Your task to perform on an android device: Open display settings Image 0: 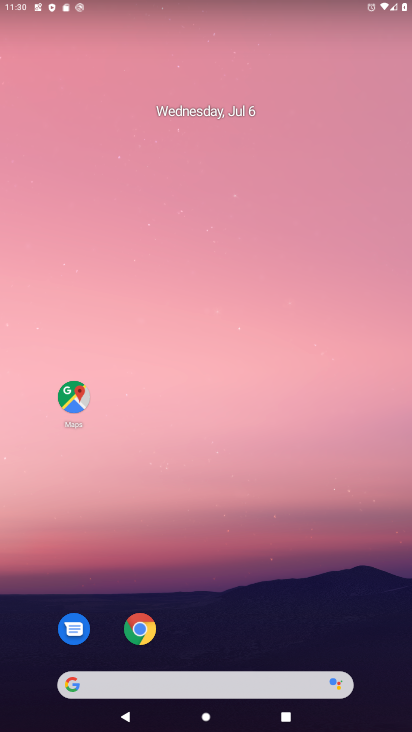
Step 0: drag from (255, 611) to (251, 53)
Your task to perform on an android device: Open display settings Image 1: 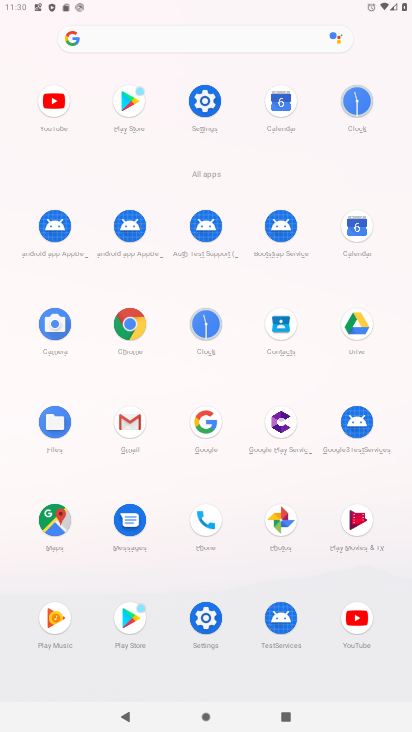
Step 1: click (205, 101)
Your task to perform on an android device: Open display settings Image 2: 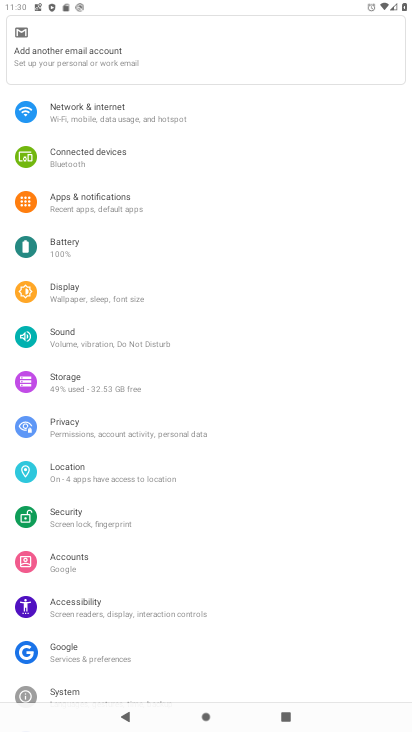
Step 2: click (82, 290)
Your task to perform on an android device: Open display settings Image 3: 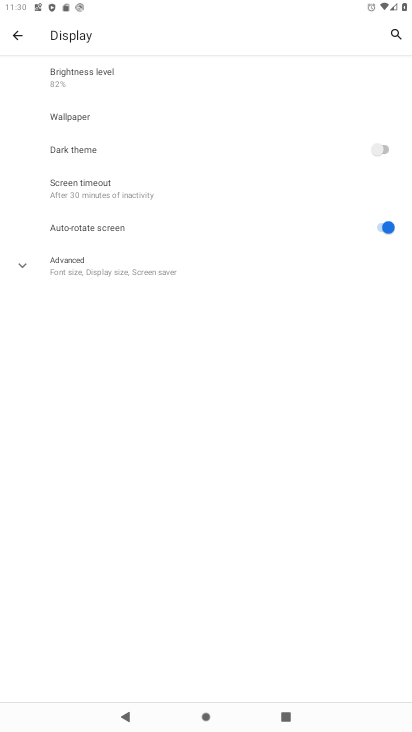
Step 3: task complete